Your task to perform on an android device: star an email in the gmail app Image 0: 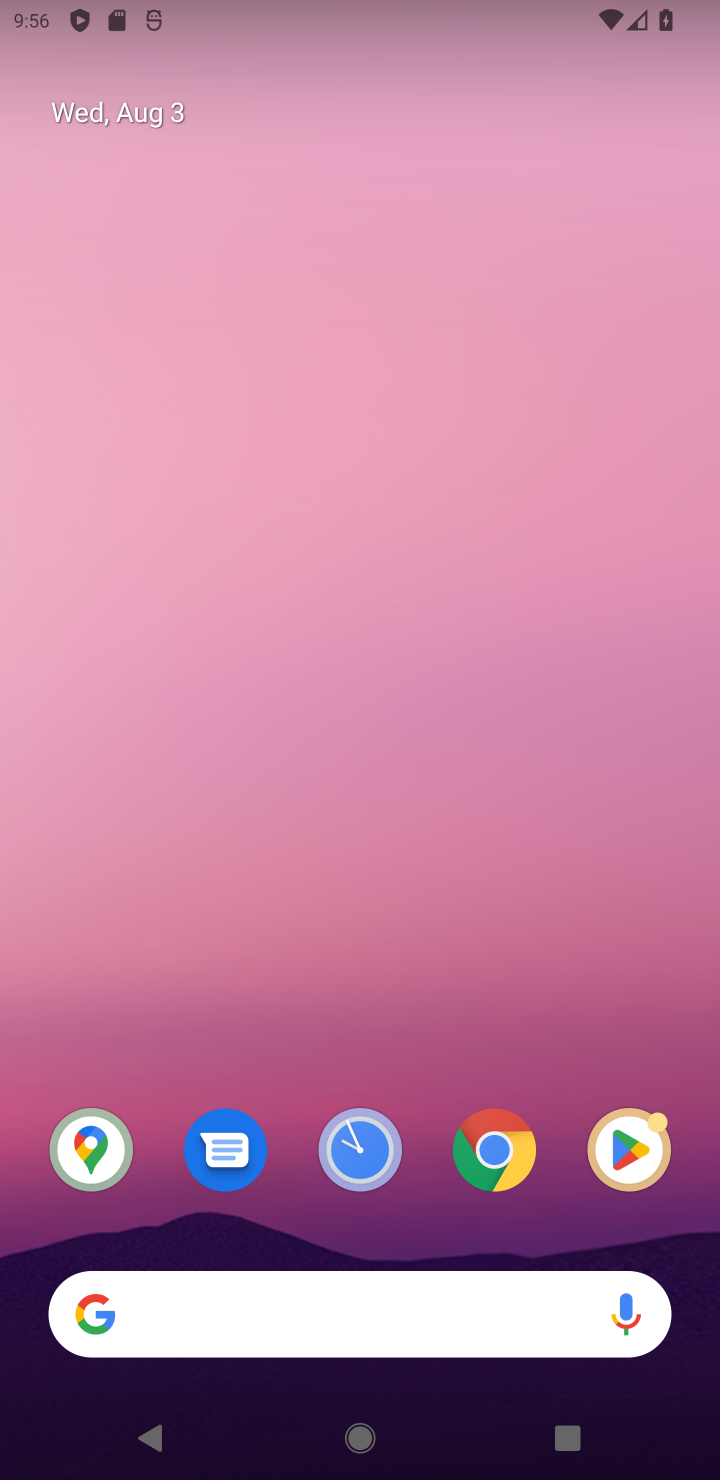
Step 0: press home button
Your task to perform on an android device: star an email in the gmail app Image 1: 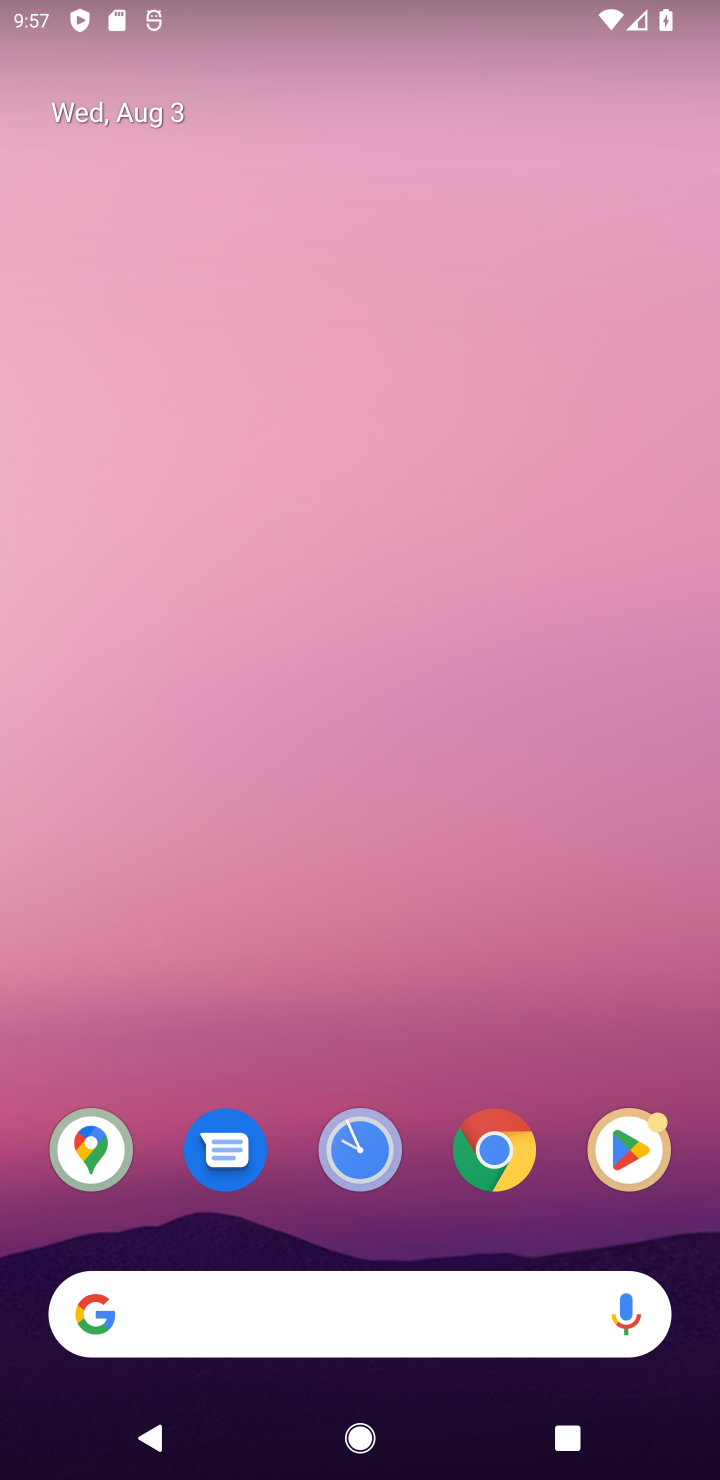
Step 1: drag from (437, 1092) to (422, 113)
Your task to perform on an android device: star an email in the gmail app Image 2: 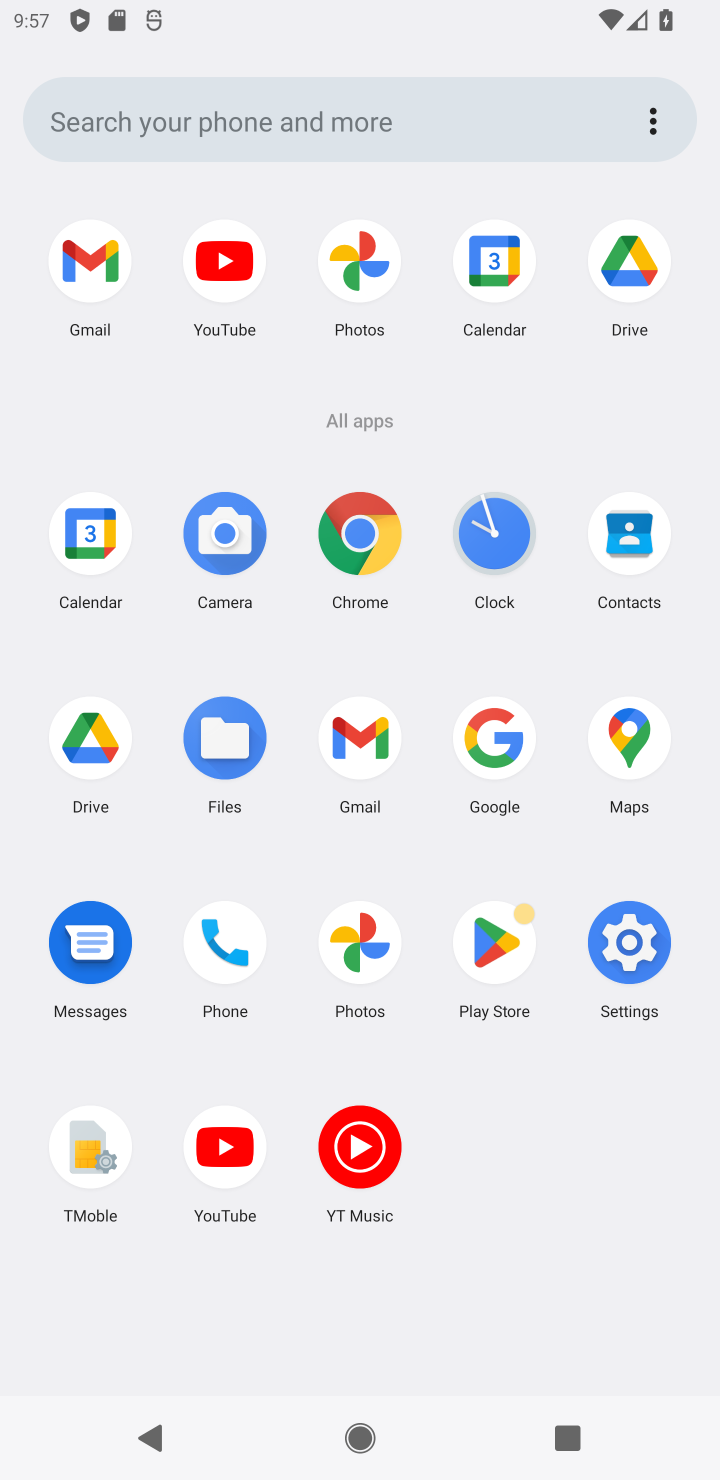
Step 2: click (359, 731)
Your task to perform on an android device: star an email in the gmail app Image 3: 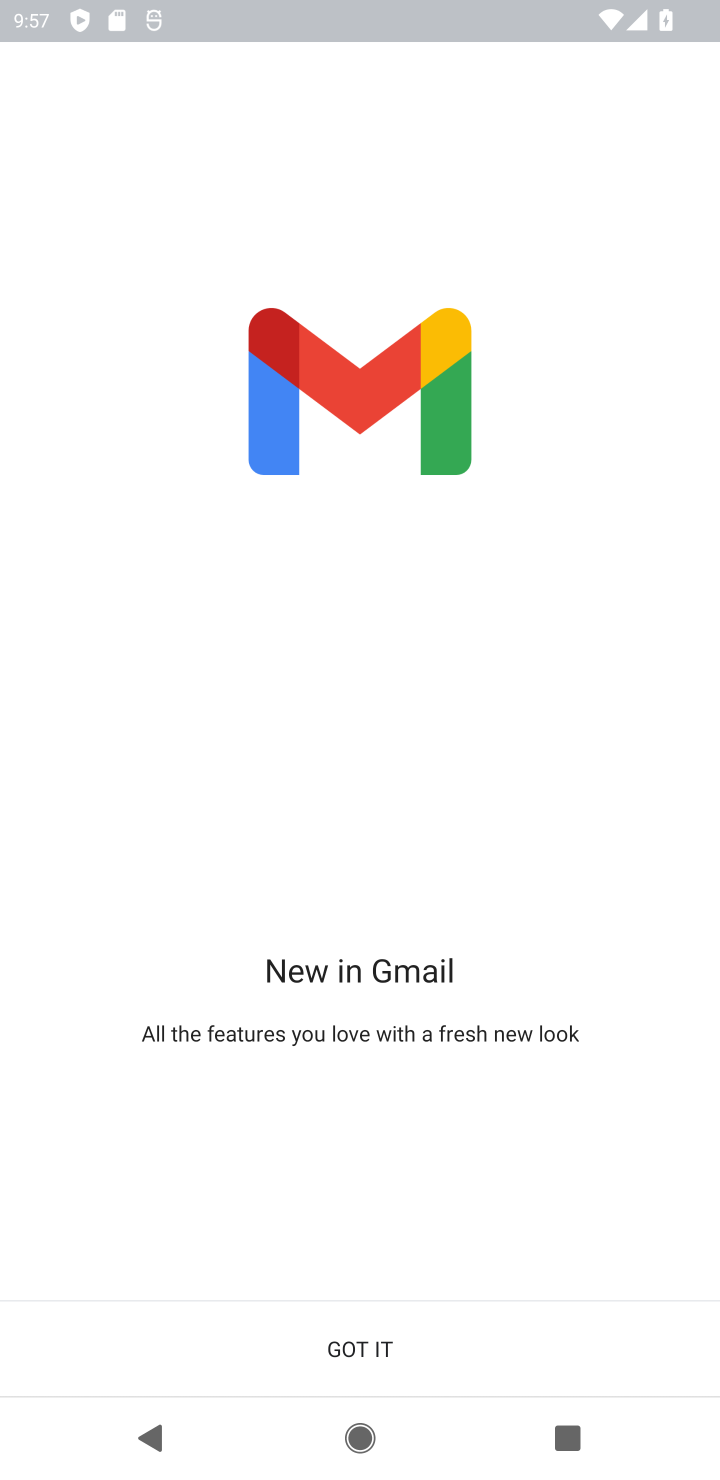
Step 3: click (355, 1349)
Your task to perform on an android device: star an email in the gmail app Image 4: 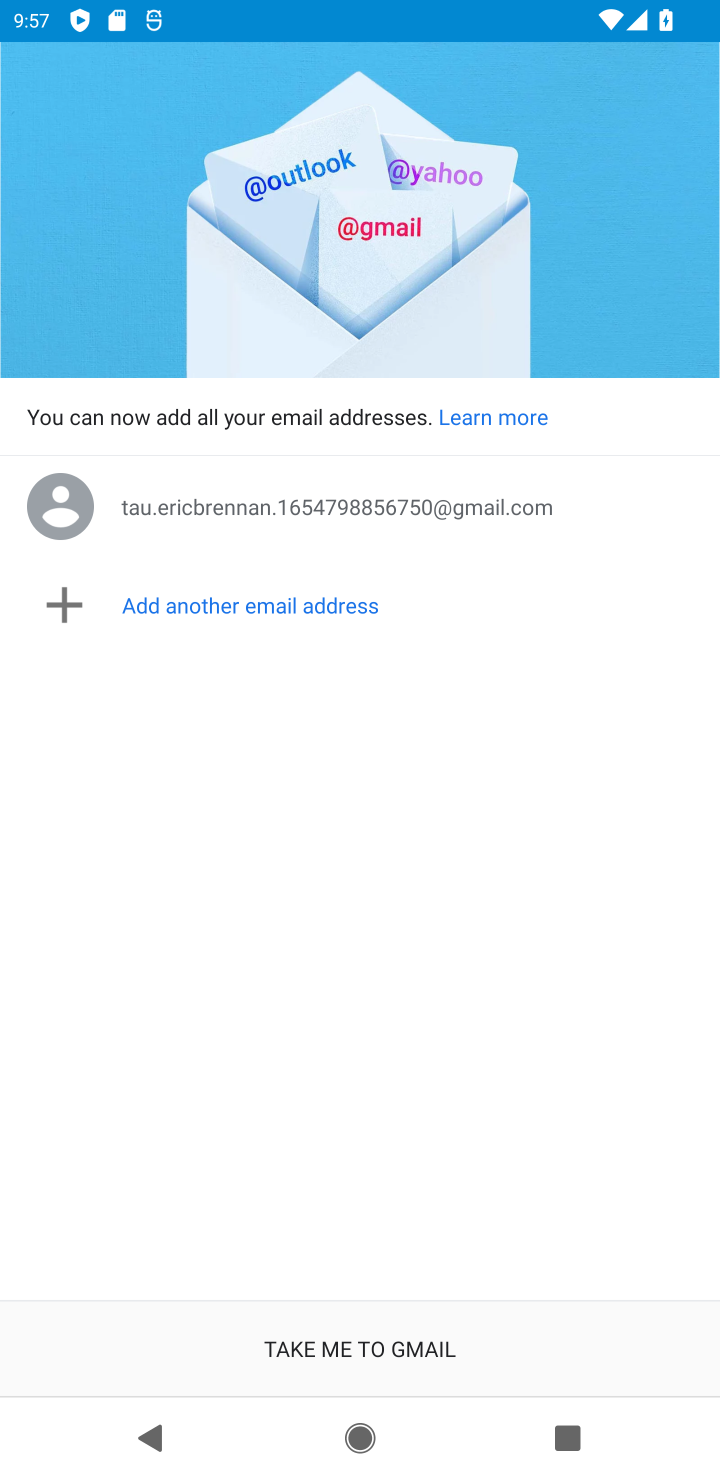
Step 4: click (336, 1344)
Your task to perform on an android device: star an email in the gmail app Image 5: 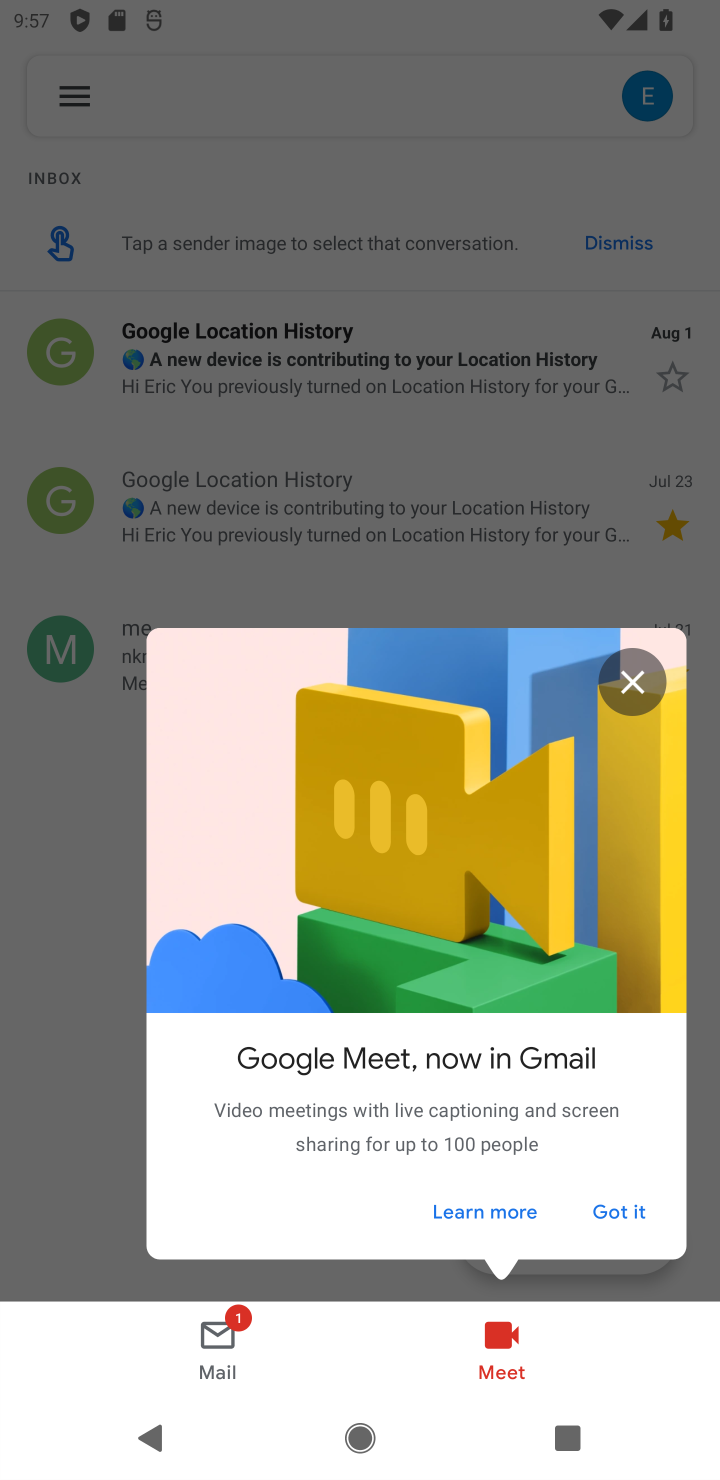
Step 5: click (623, 1216)
Your task to perform on an android device: star an email in the gmail app Image 6: 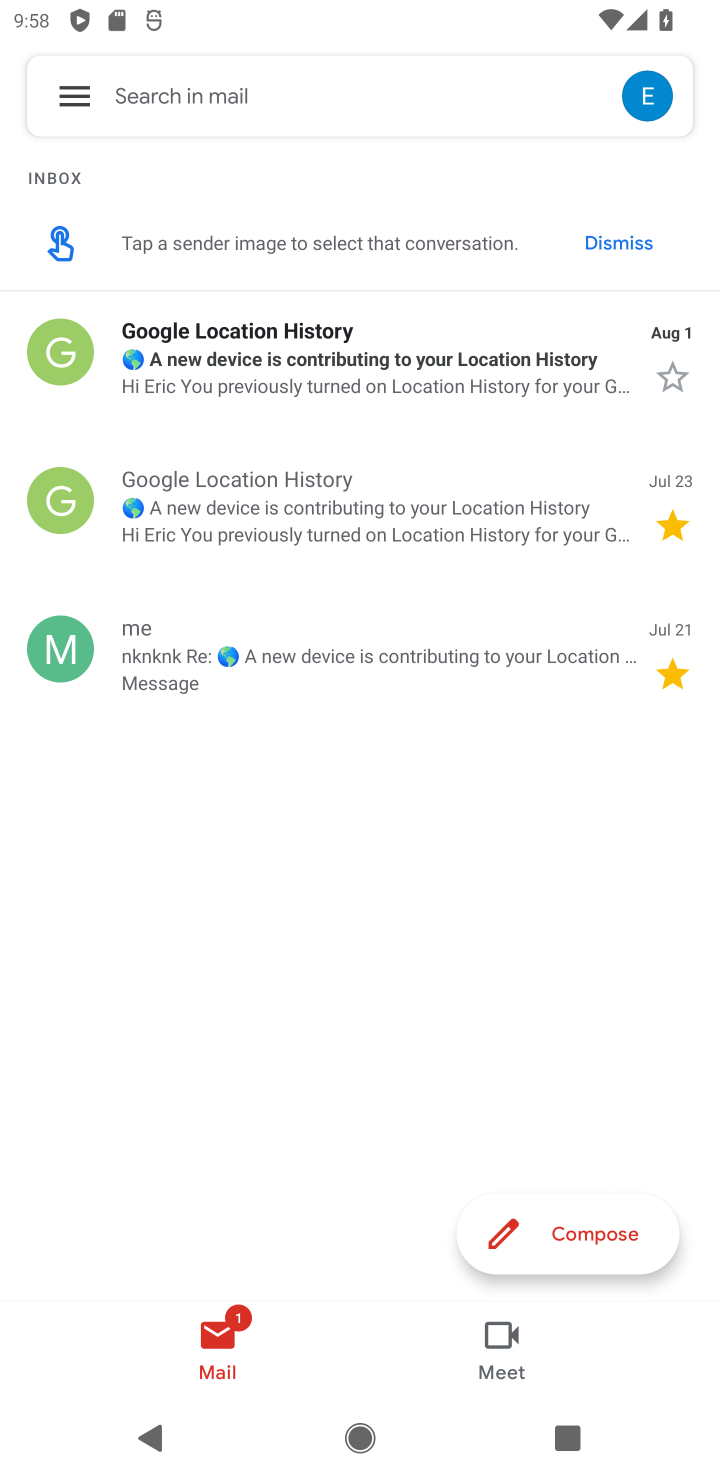
Step 6: click (667, 367)
Your task to perform on an android device: star an email in the gmail app Image 7: 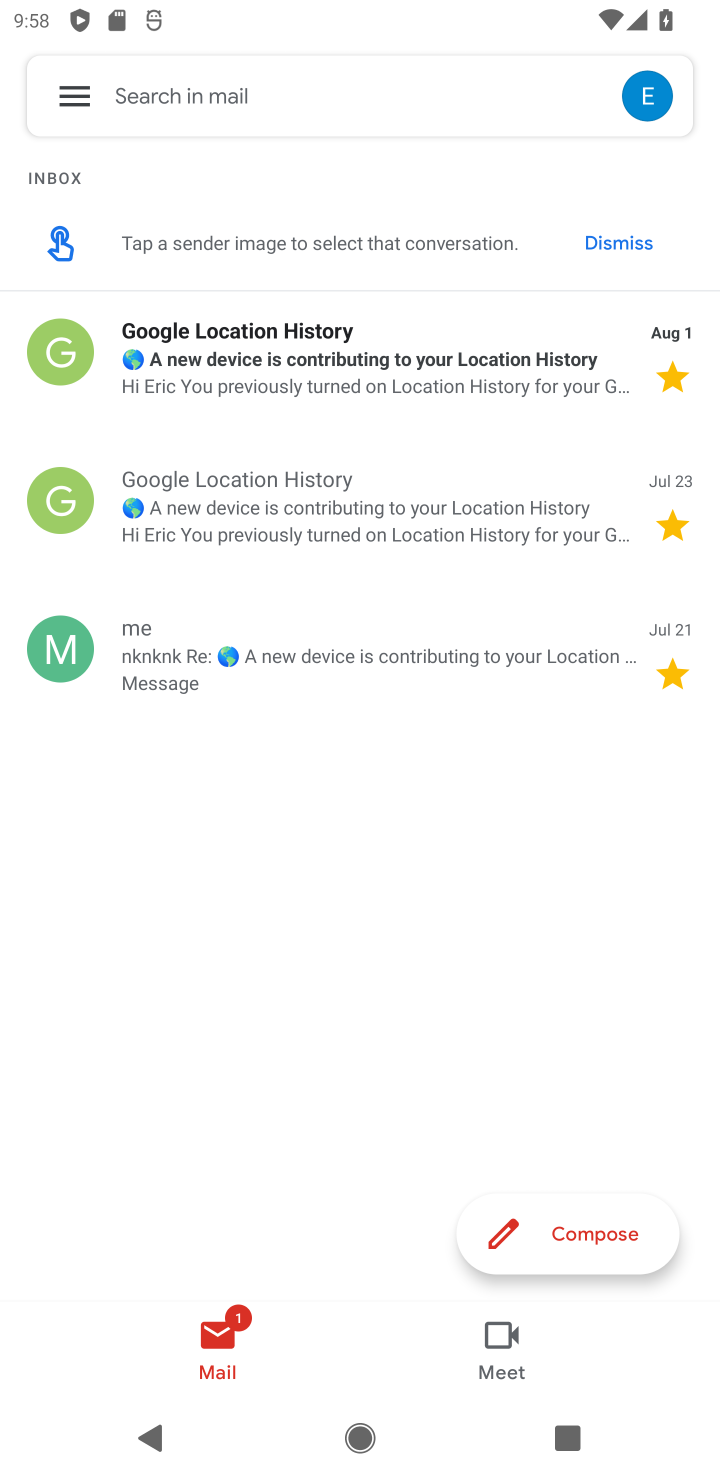
Step 7: click (680, 374)
Your task to perform on an android device: star an email in the gmail app Image 8: 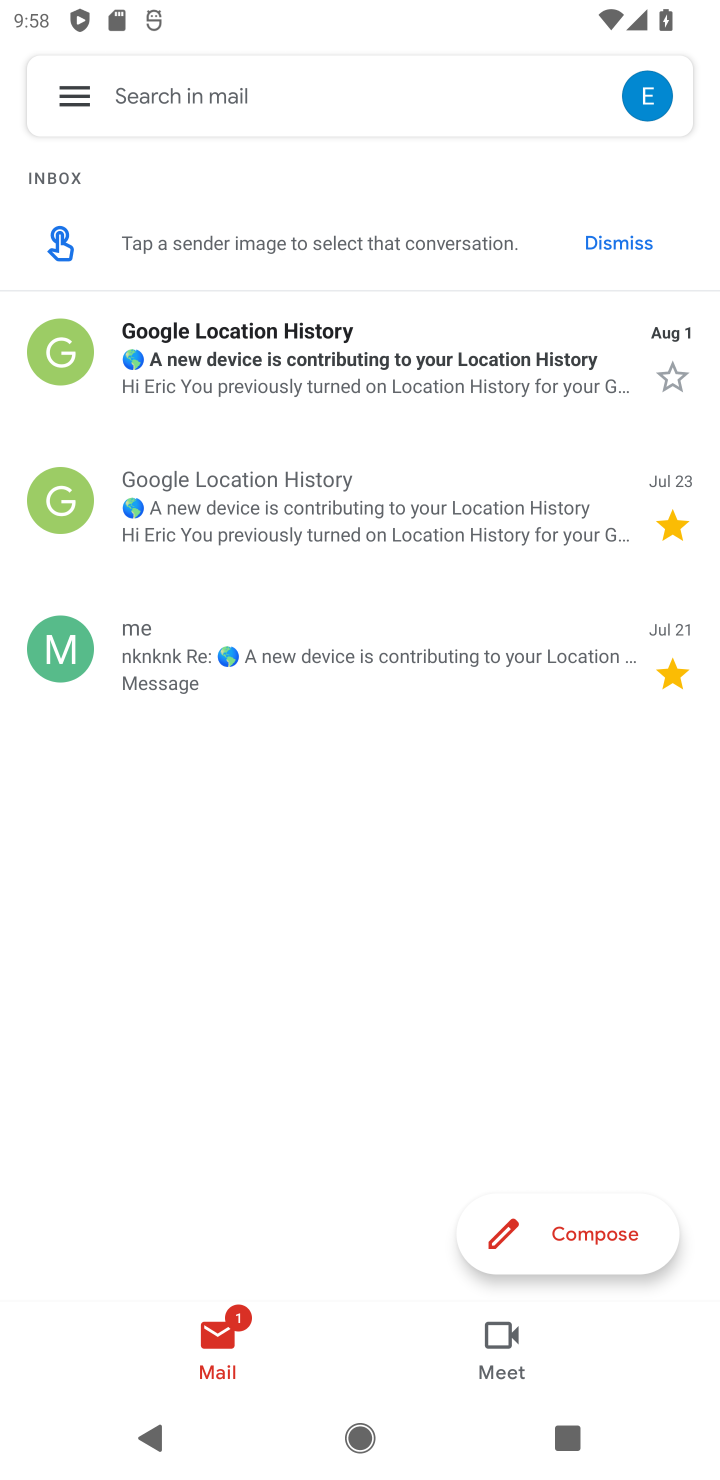
Step 8: click (675, 378)
Your task to perform on an android device: star an email in the gmail app Image 9: 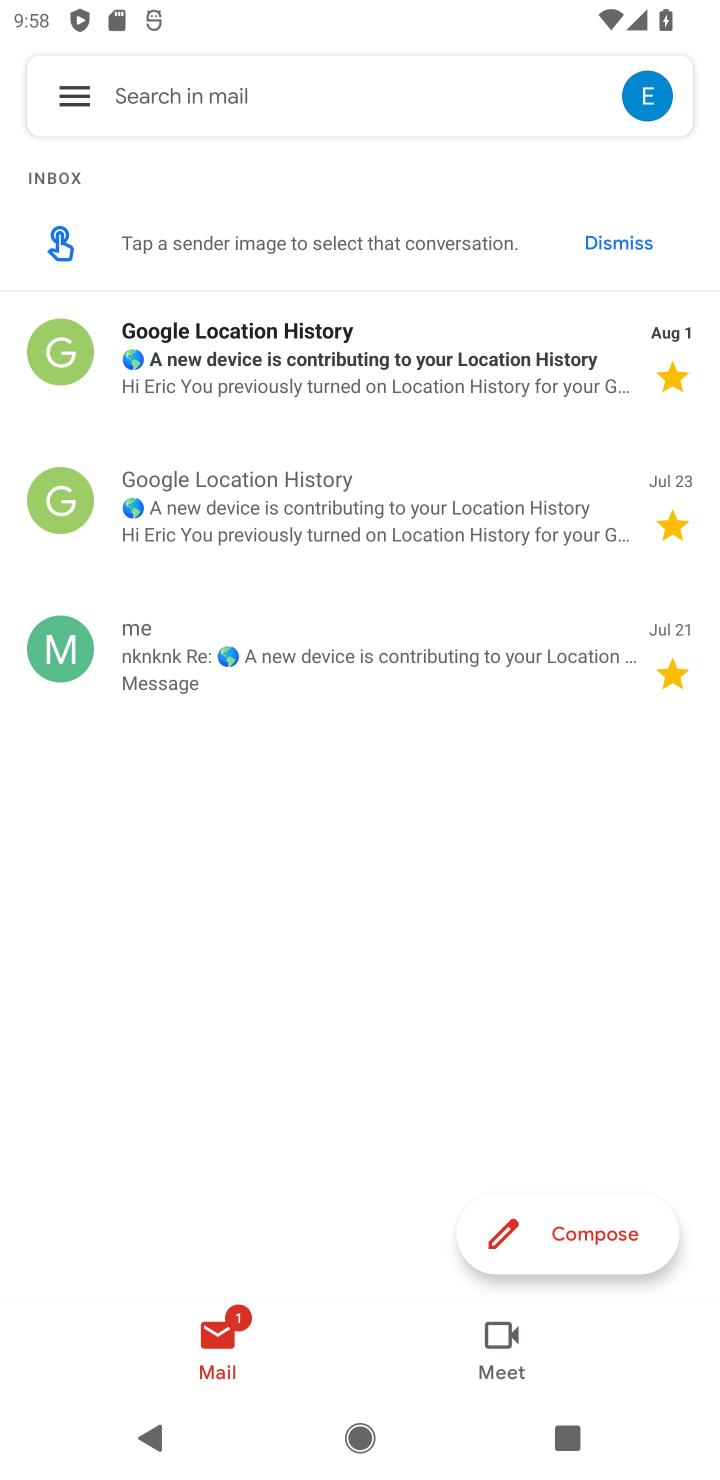
Step 9: task complete